Your task to perform on an android device: open app "Adobe Express: Graphic Design" Image 0: 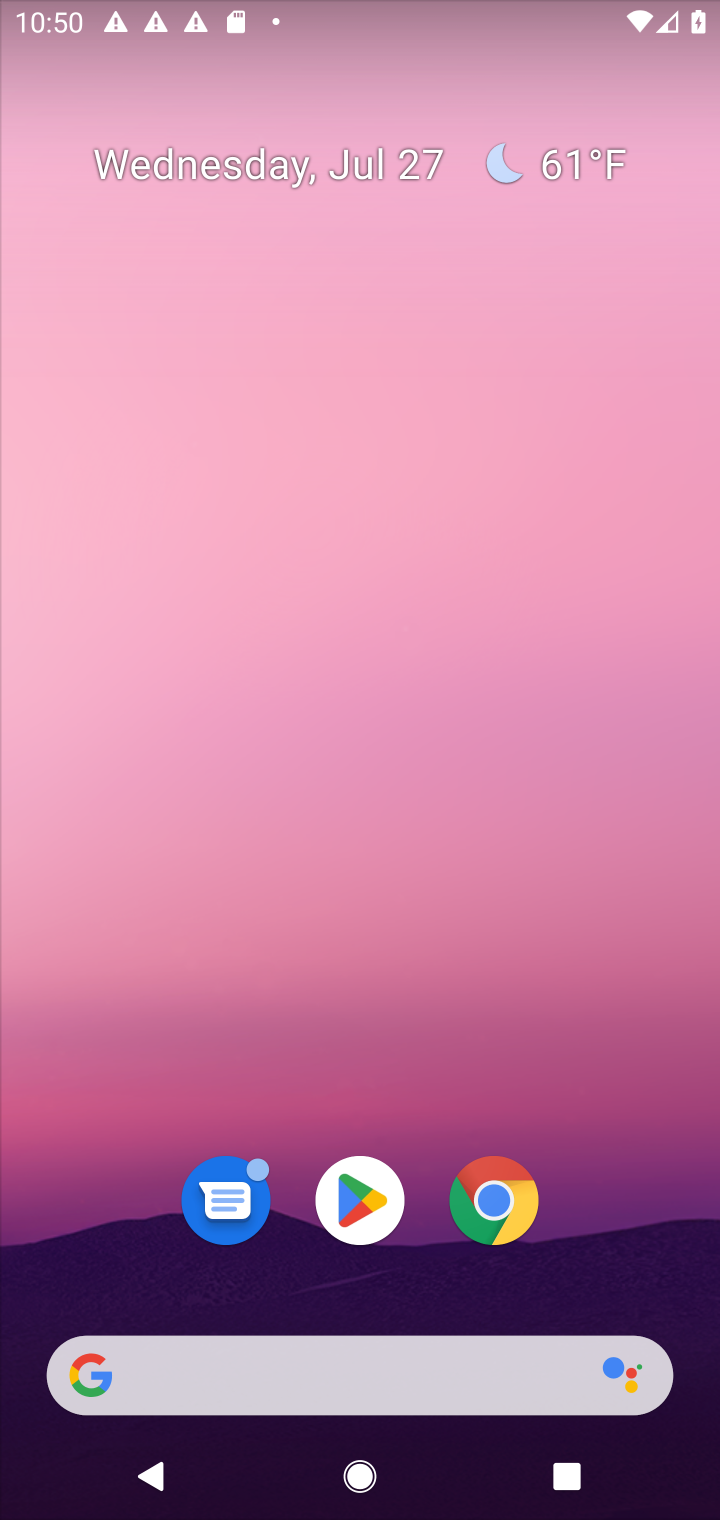
Step 0: click (349, 1211)
Your task to perform on an android device: open app "Adobe Express: Graphic Design" Image 1: 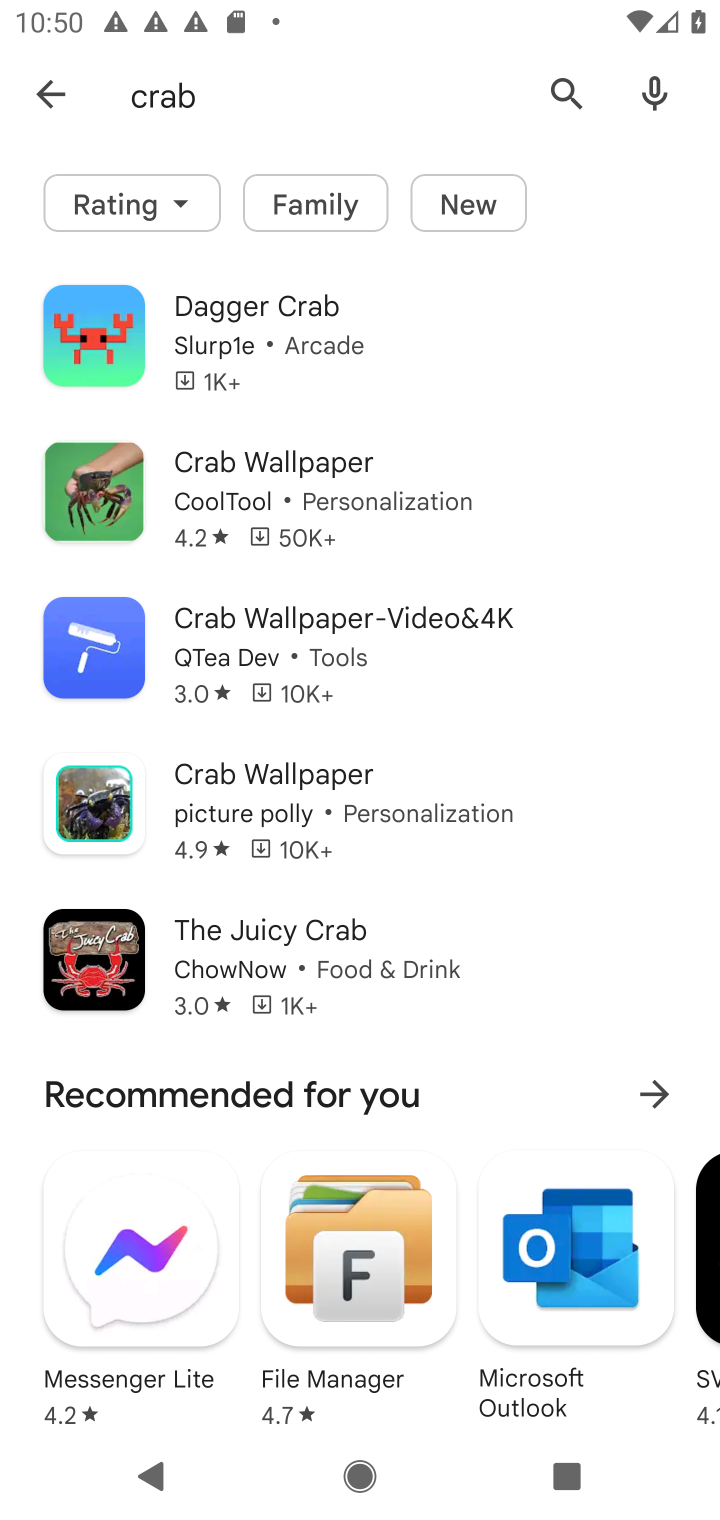
Step 1: click (565, 88)
Your task to perform on an android device: open app "Adobe Express: Graphic Design" Image 2: 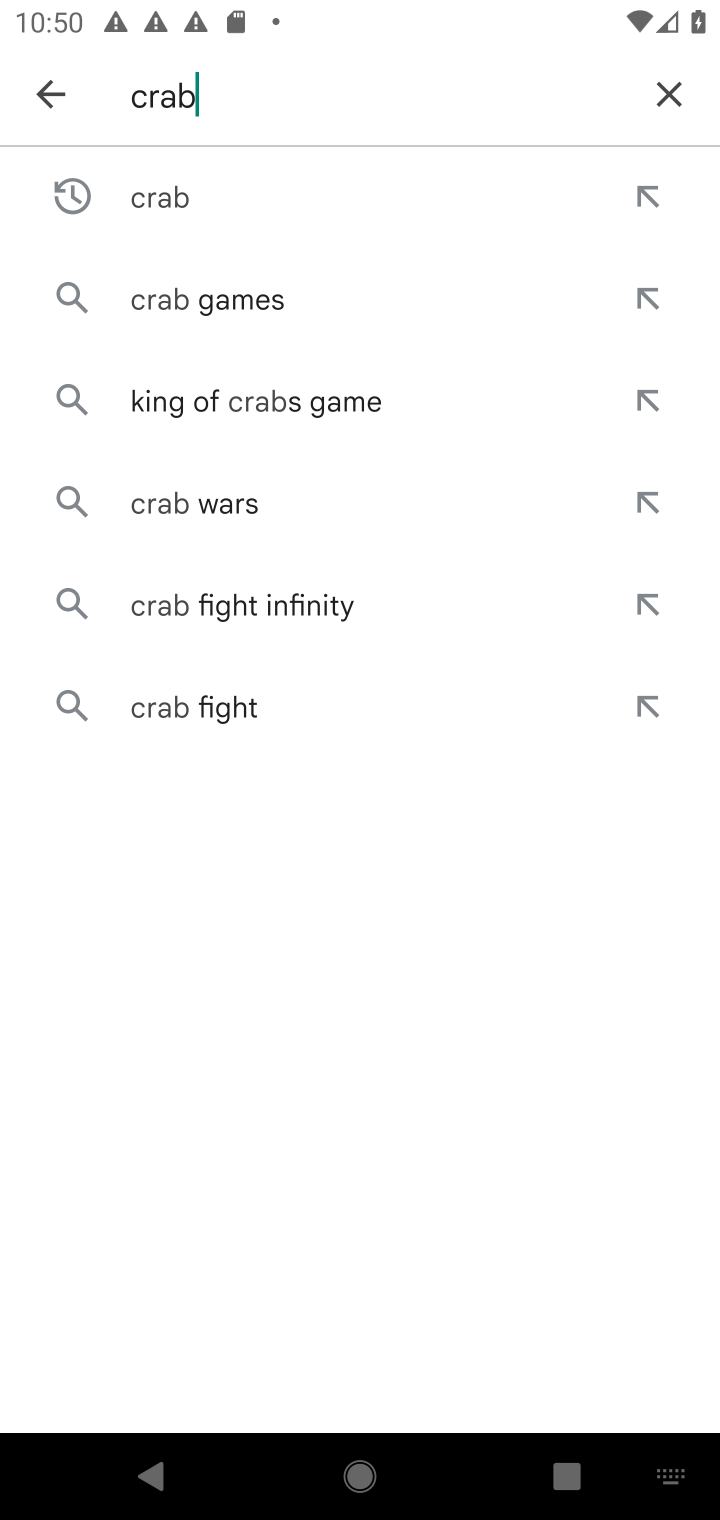
Step 2: click (664, 76)
Your task to perform on an android device: open app "Adobe Express: Graphic Design" Image 3: 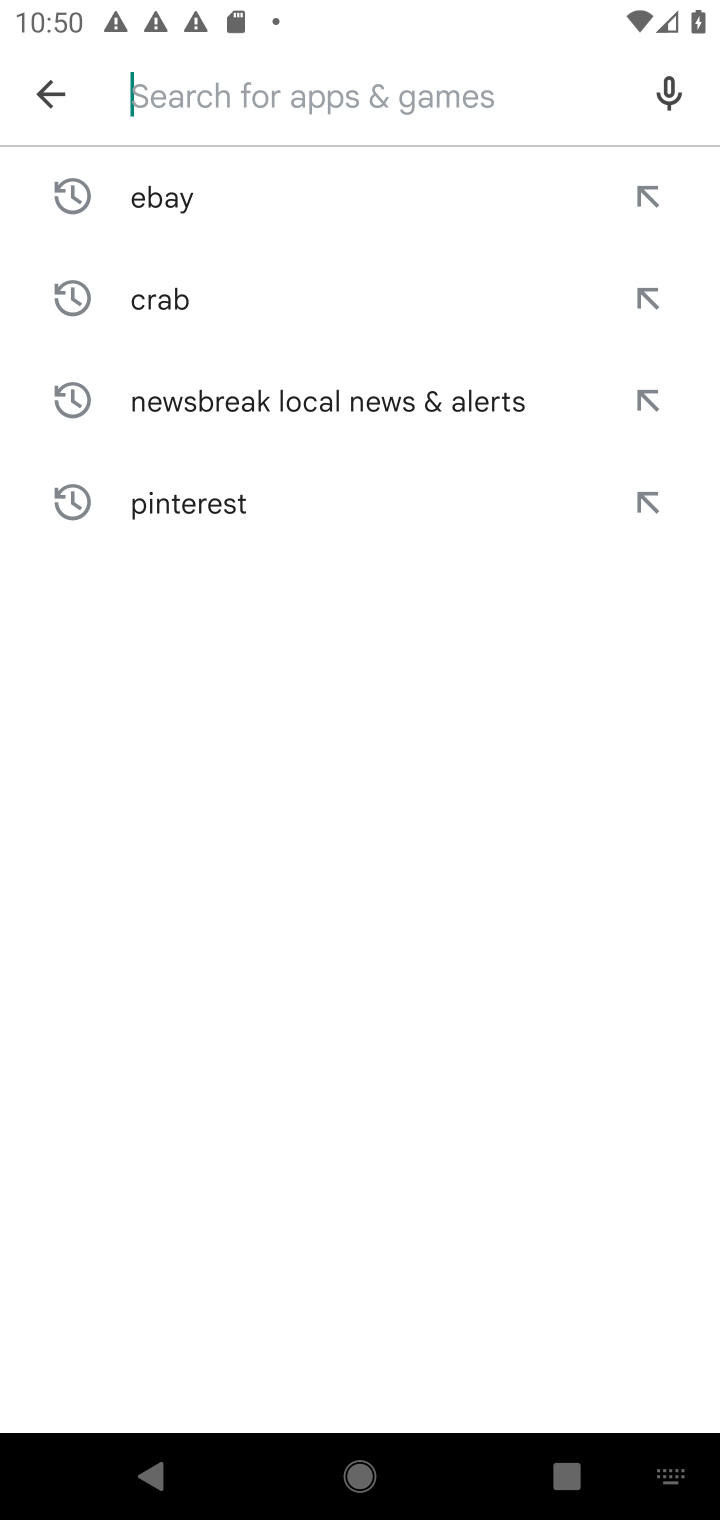
Step 3: click (377, 90)
Your task to perform on an android device: open app "Adobe Express: Graphic Design" Image 4: 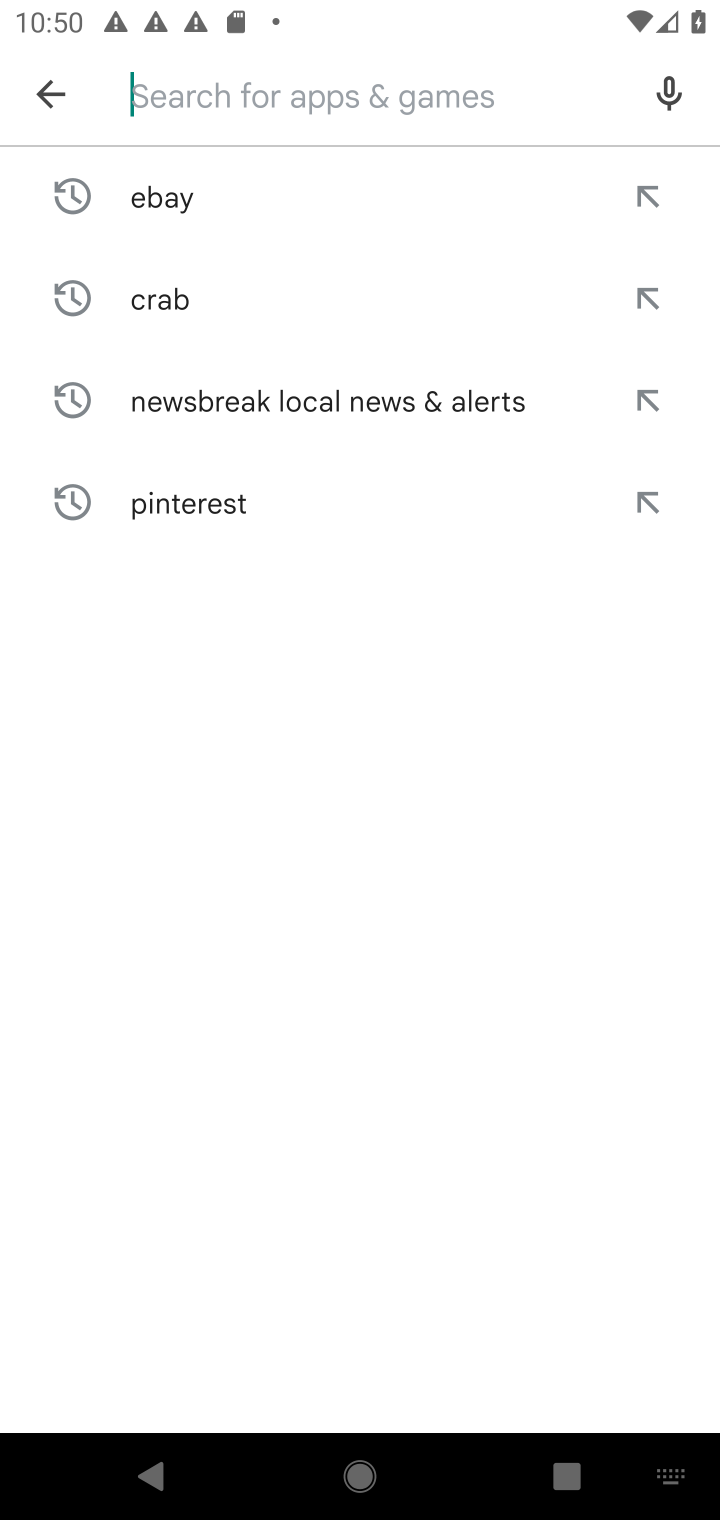
Step 4: type "adobe express"
Your task to perform on an android device: open app "Adobe Express: Graphic Design" Image 5: 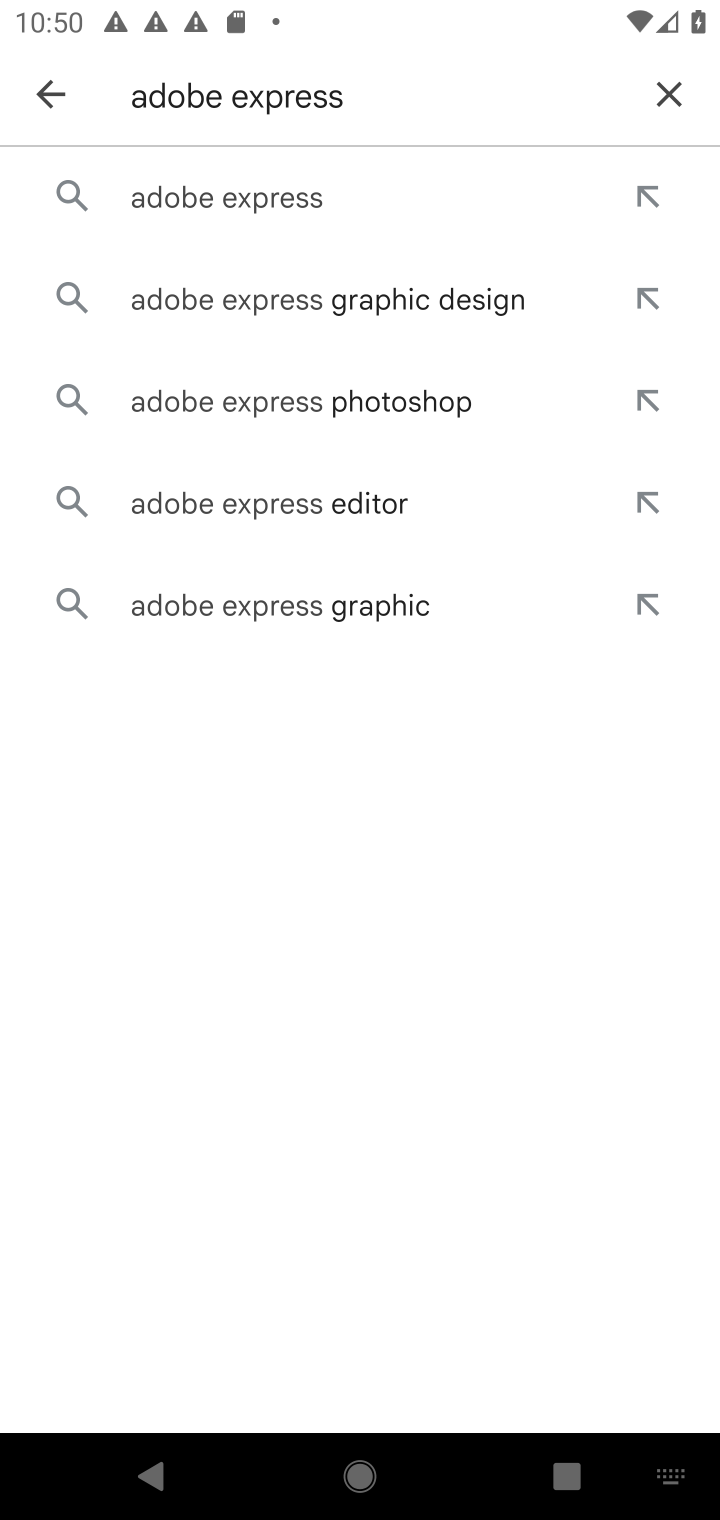
Step 5: click (302, 284)
Your task to perform on an android device: open app "Adobe Express: Graphic Design" Image 6: 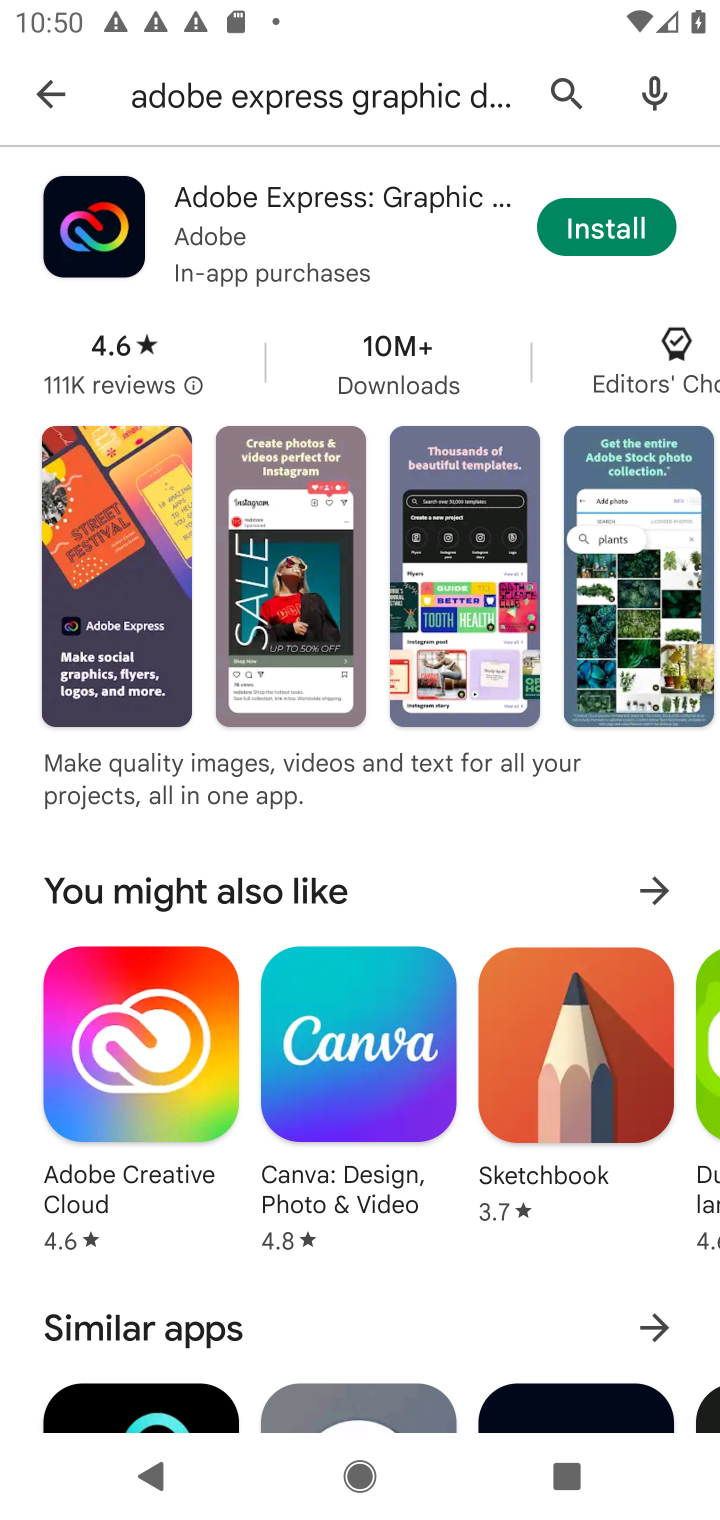
Step 6: task complete